Your task to perform on an android device: change your default location settings in chrome Image 0: 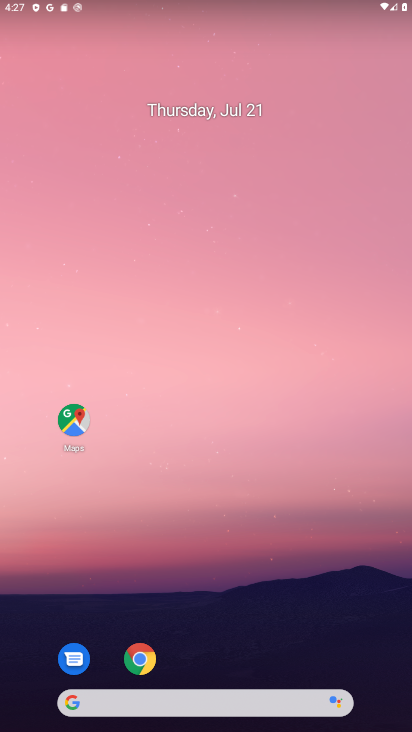
Step 0: click (141, 664)
Your task to perform on an android device: change your default location settings in chrome Image 1: 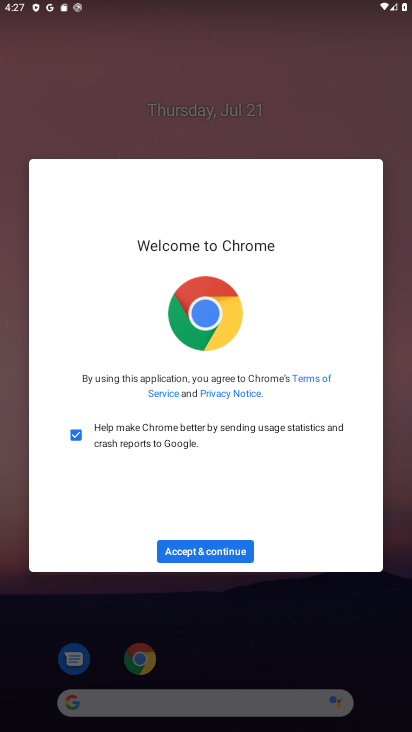
Step 1: click (202, 550)
Your task to perform on an android device: change your default location settings in chrome Image 2: 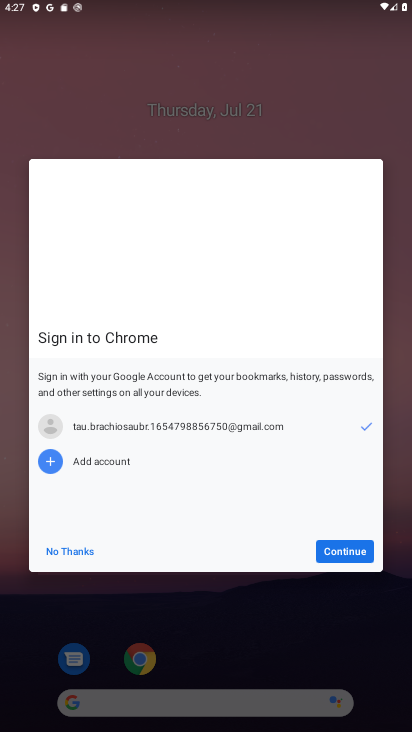
Step 2: click (330, 554)
Your task to perform on an android device: change your default location settings in chrome Image 3: 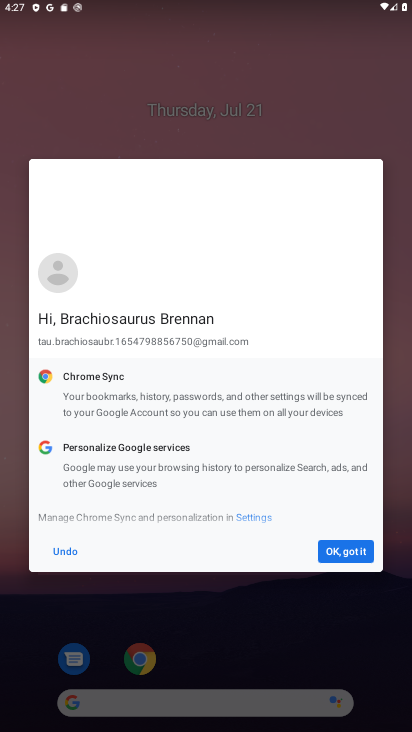
Step 3: click (335, 554)
Your task to perform on an android device: change your default location settings in chrome Image 4: 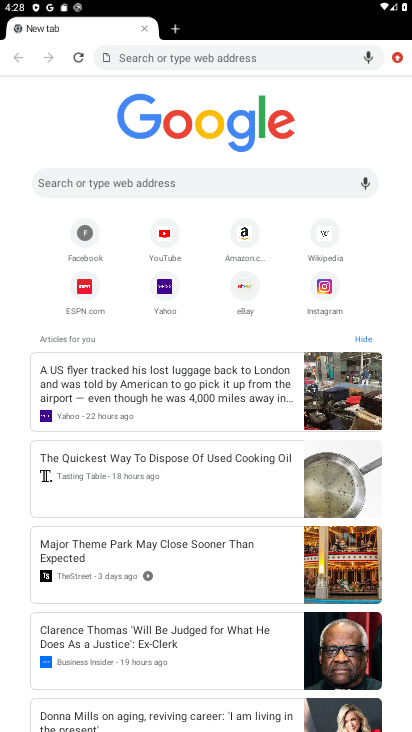
Step 4: click (393, 55)
Your task to perform on an android device: change your default location settings in chrome Image 5: 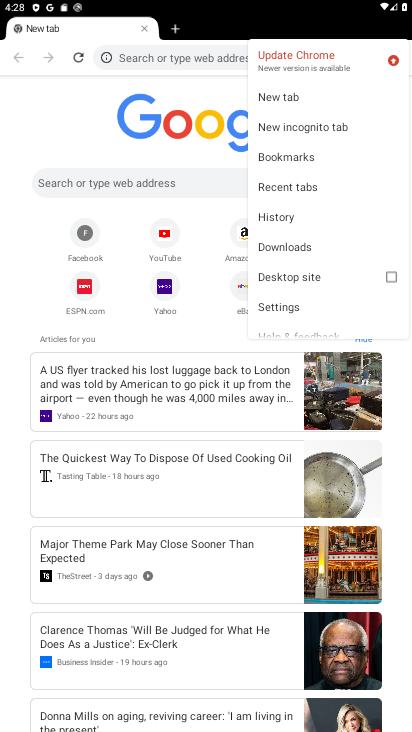
Step 5: click (283, 301)
Your task to perform on an android device: change your default location settings in chrome Image 6: 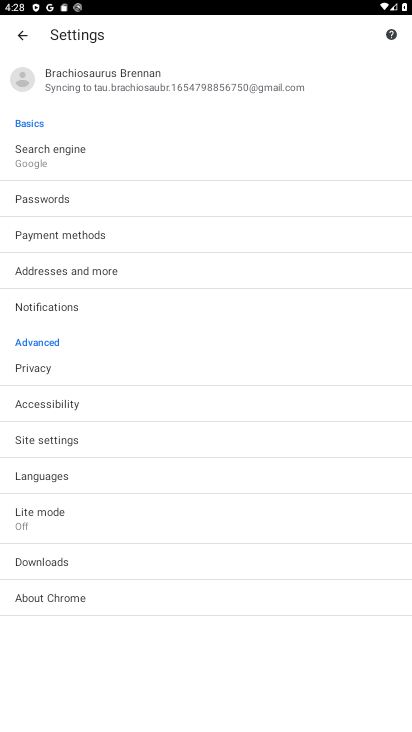
Step 6: click (39, 438)
Your task to perform on an android device: change your default location settings in chrome Image 7: 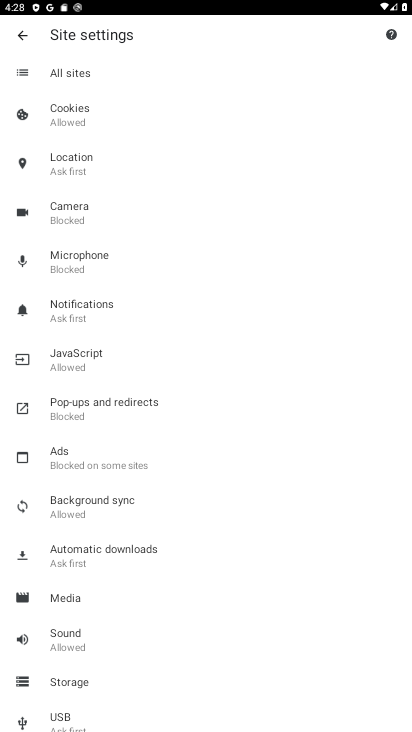
Step 7: click (75, 157)
Your task to perform on an android device: change your default location settings in chrome Image 8: 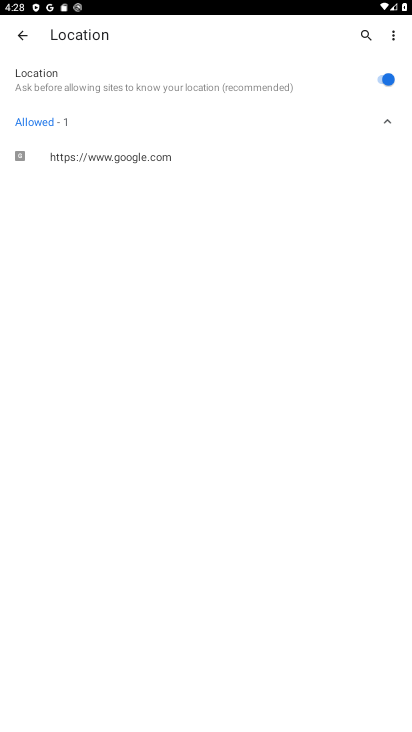
Step 8: click (390, 77)
Your task to perform on an android device: change your default location settings in chrome Image 9: 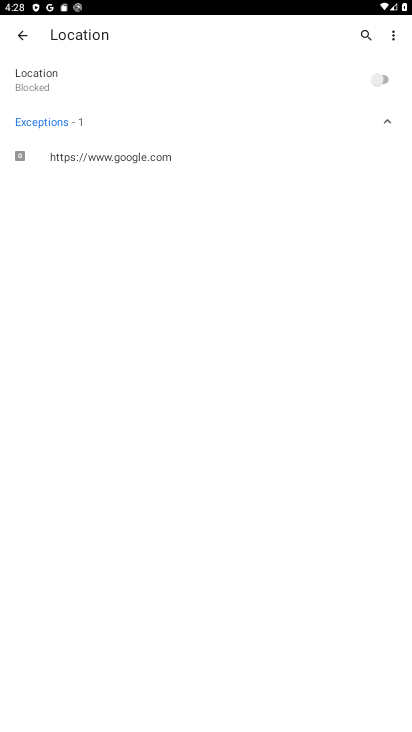
Step 9: task complete